Your task to perform on an android device: change the clock display to analog Image 0: 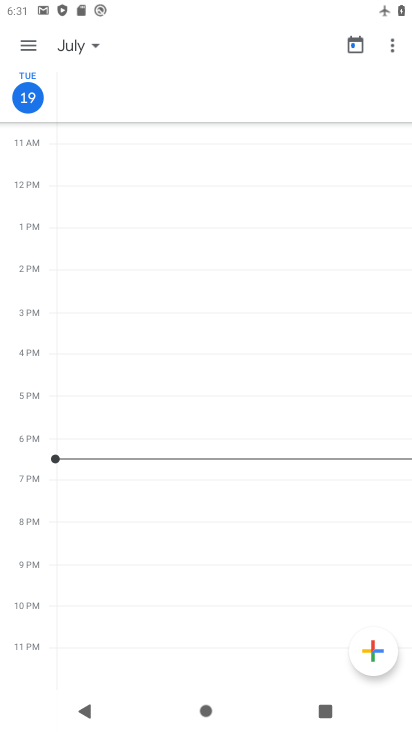
Step 0: press home button
Your task to perform on an android device: change the clock display to analog Image 1: 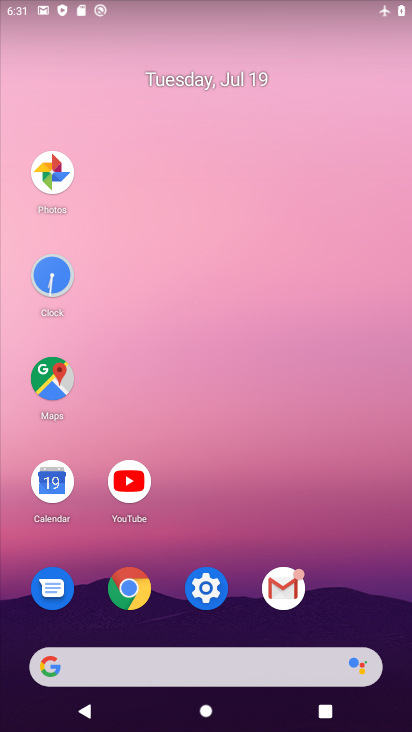
Step 1: click (49, 277)
Your task to perform on an android device: change the clock display to analog Image 2: 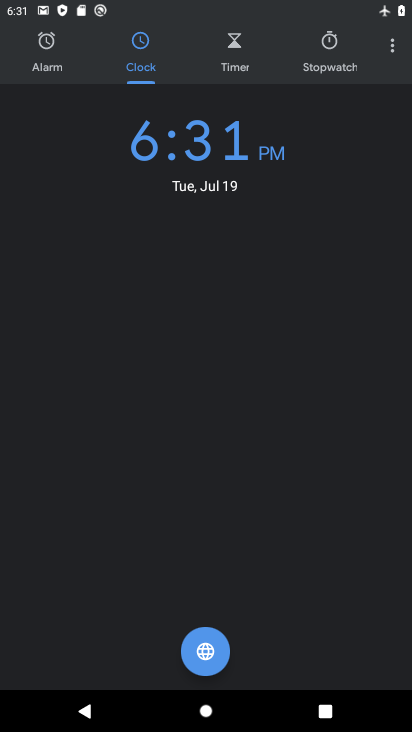
Step 2: click (397, 41)
Your task to perform on an android device: change the clock display to analog Image 3: 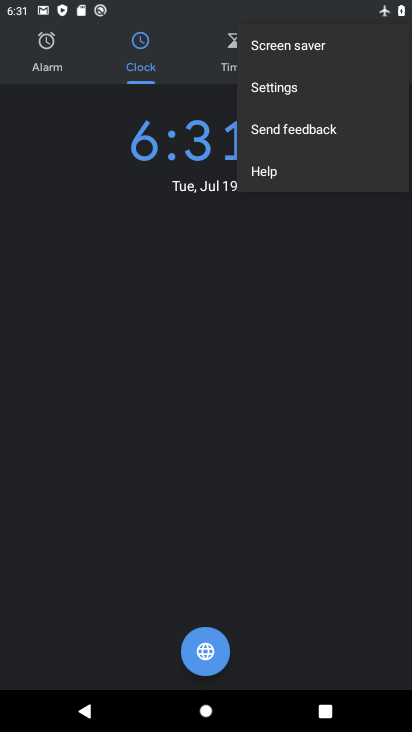
Step 3: click (291, 91)
Your task to perform on an android device: change the clock display to analog Image 4: 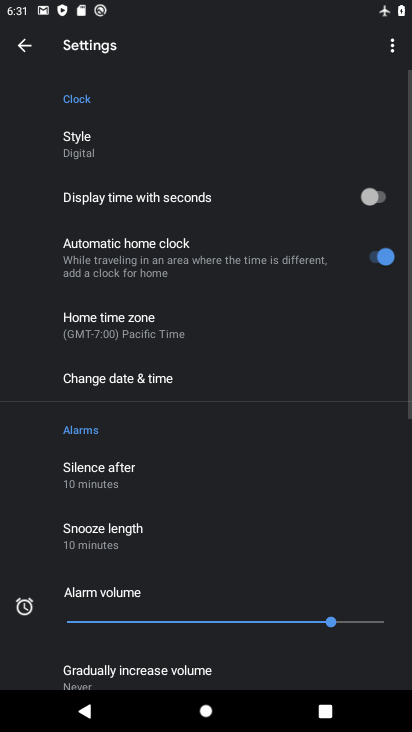
Step 4: click (73, 147)
Your task to perform on an android device: change the clock display to analog Image 5: 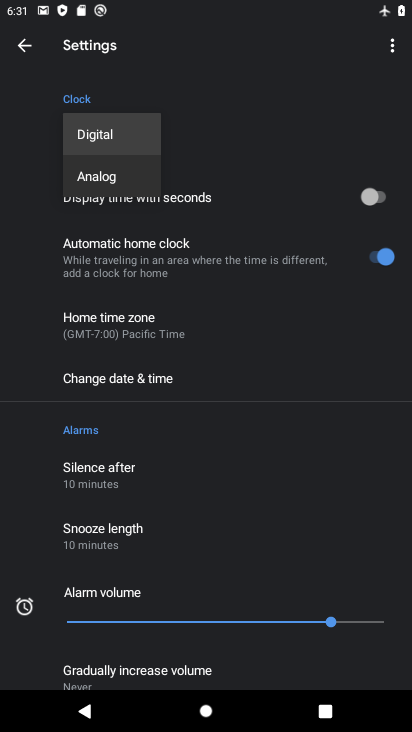
Step 5: click (96, 186)
Your task to perform on an android device: change the clock display to analog Image 6: 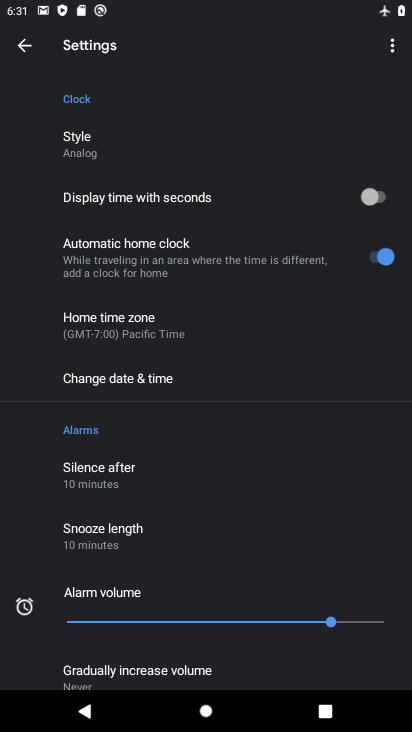
Step 6: task complete